Your task to perform on an android device: Open Google Chrome and click the shortcut for Amazon.com Image 0: 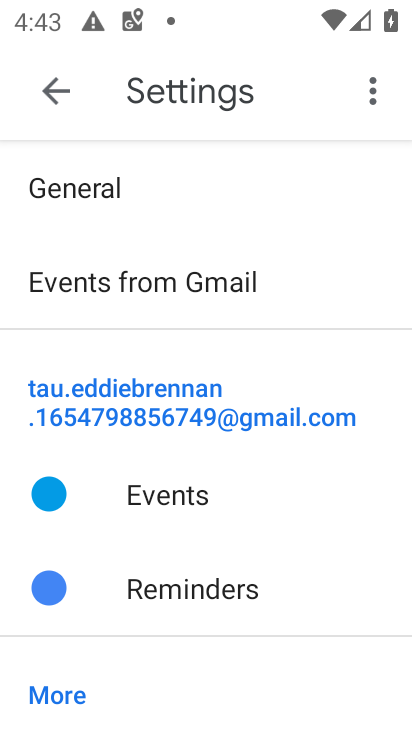
Step 0: press home button
Your task to perform on an android device: Open Google Chrome and click the shortcut for Amazon.com Image 1: 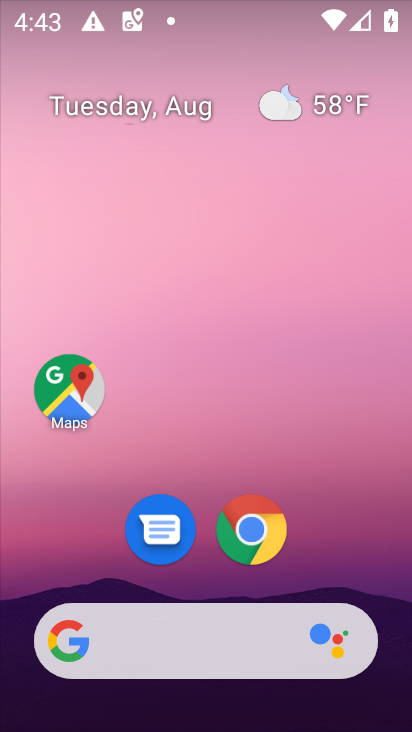
Step 1: click (231, 532)
Your task to perform on an android device: Open Google Chrome and click the shortcut for Amazon.com Image 2: 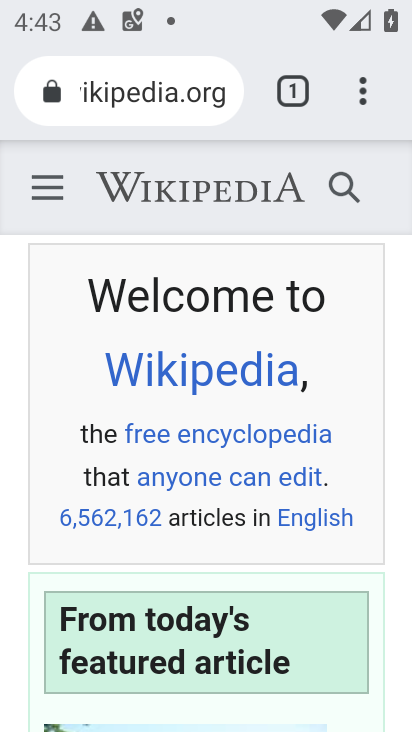
Step 2: click (290, 95)
Your task to perform on an android device: Open Google Chrome and click the shortcut for Amazon.com Image 3: 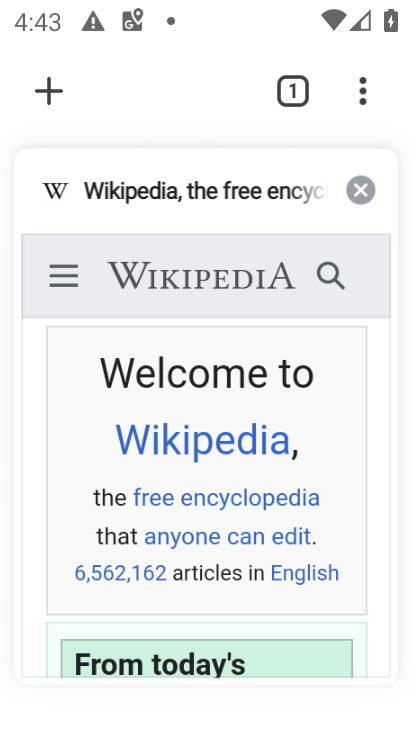
Step 3: click (57, 90)
Your task to perform on an android device: Open Google Chrome and click the shortcut for Amazon.com Image 4: 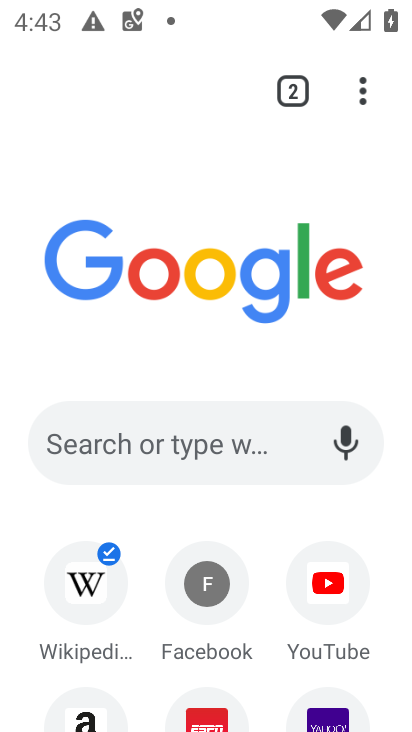
Step 4: click (105, 711)
Your task to perform on an android device: Open Google Chrome and click the shortcut for Amazon.com Image 5: 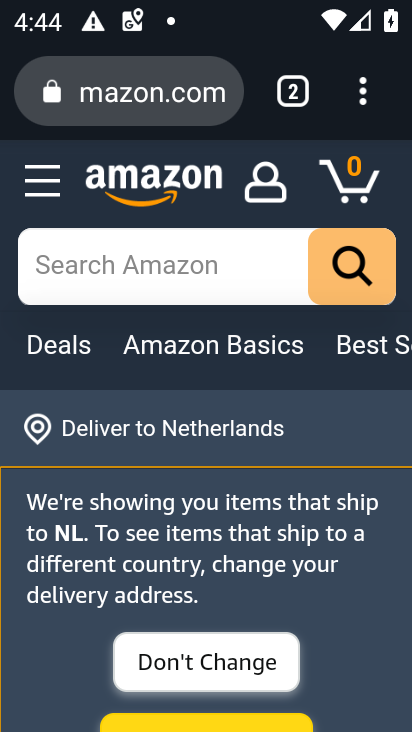
Step 5: task complete